Your task to perform on an android device: make emails show in primary in the gmail app Image 0: 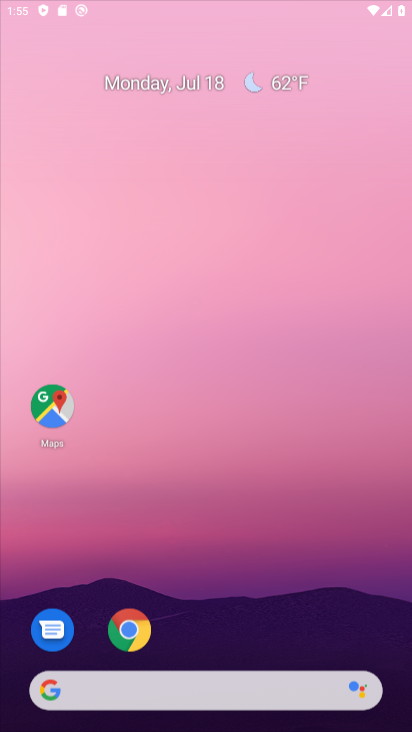
Step 0: press home button
Your task to perform on an android device: make emails show in primary in the gmail app Image 1: 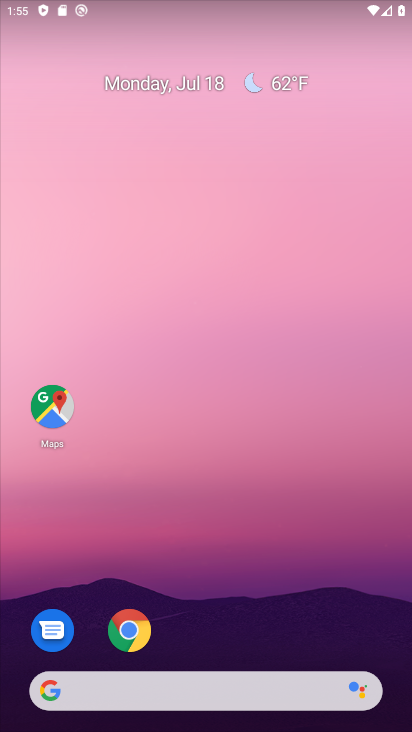
Step 1: click (122, 633)
Your task to perform on an android device: make emails show in primary in the gmail app Image 2: 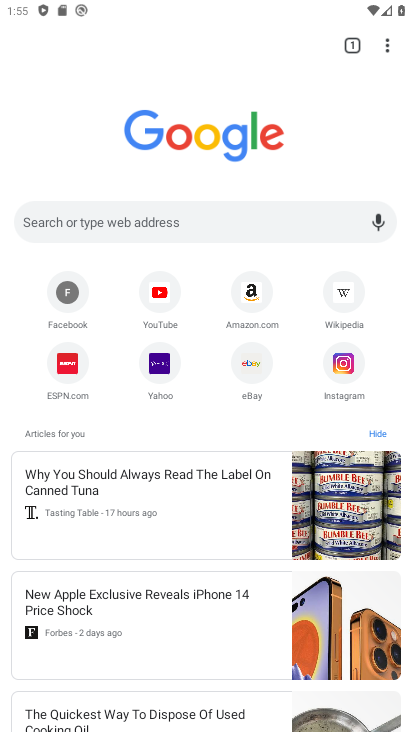
Step 2: click (125, 217)
Your task to perform on an android device: make emails show in primary in the gmail app Image 3: 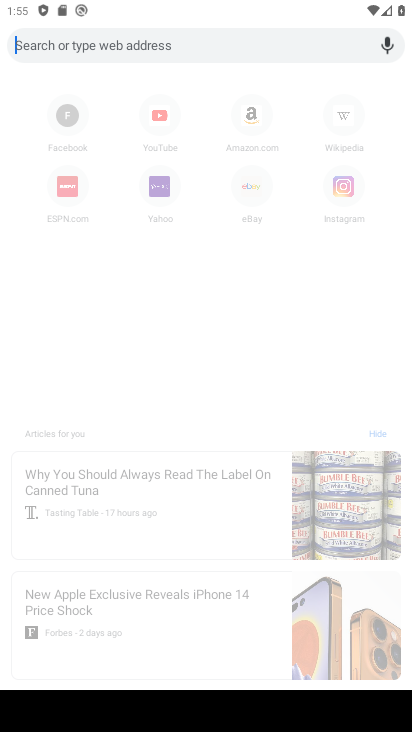
Step 3: press home button
Your task to perform on an android device: make emails show in primary in the gmail app Image 4: 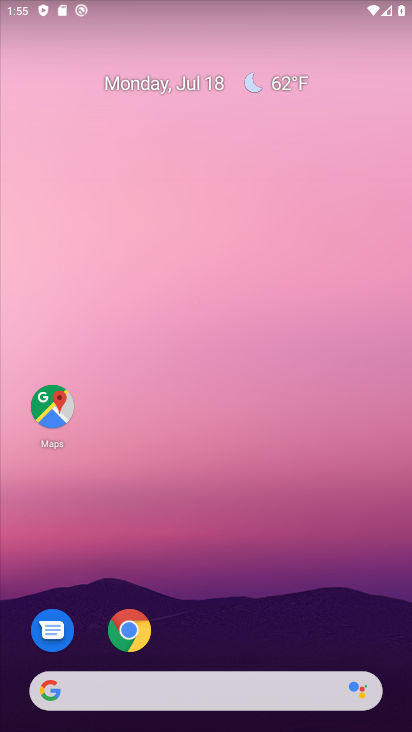
Step 4: drag from (112, 669) to (93, 329)
Your task to perform on an android device: make emails show in primary in the gmail app Image 5: 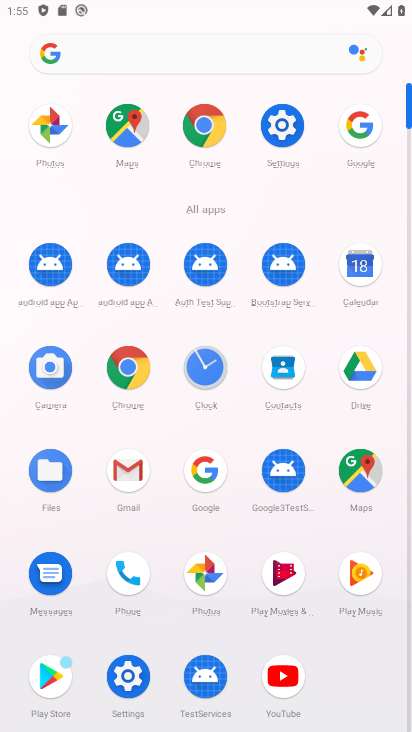
Step 5: click (107, 482)
Your task to perform on an android device: make emails show in primary in the gmail app Image 6: 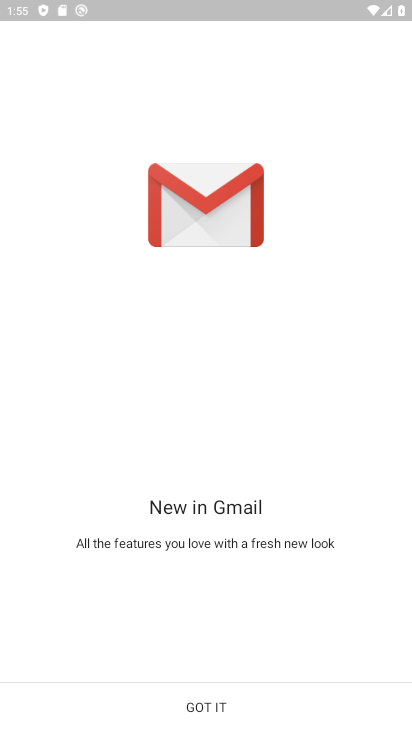
Step 6: click (191, 708)
Your task to perform on an android device: make emails show in primary in the gmail app Image 7: 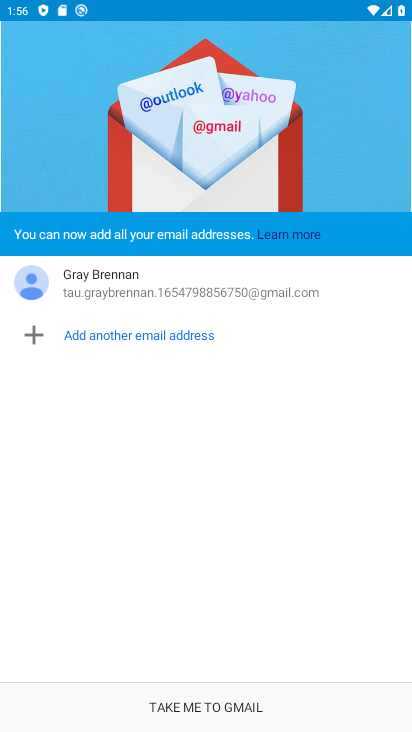
Step 7: click (166, 697)
Your task to perform on an android device: make emails show in primary in the gmail app Image 8: 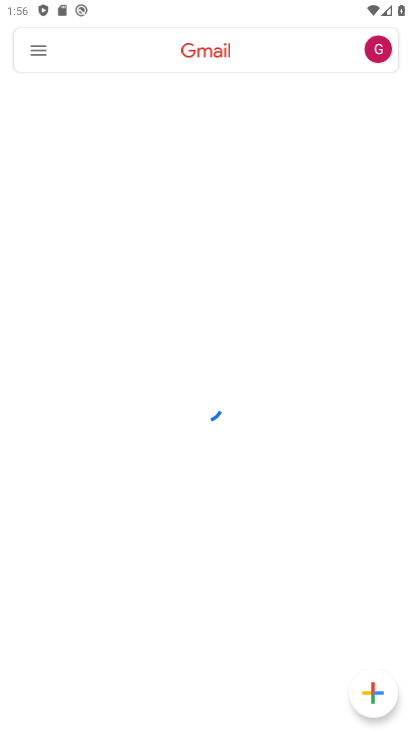
Step 8: click (44, 55)
Your task to perform on an android device: make emails show in primary in the gmail app Image 9: 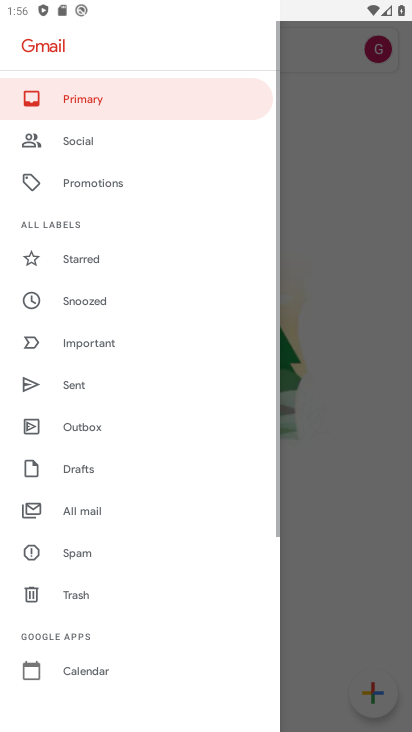
Step 9: click (72, 231)
Your task to perform on an android device: make emails show in primary in the gmail app Image 10: 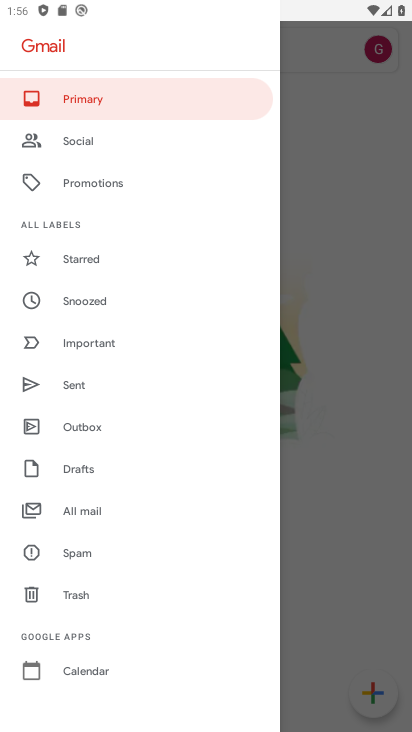
Step 10: task complete